Your task to perform on an android device: Open calendar and show me the second week of next month Image 0: 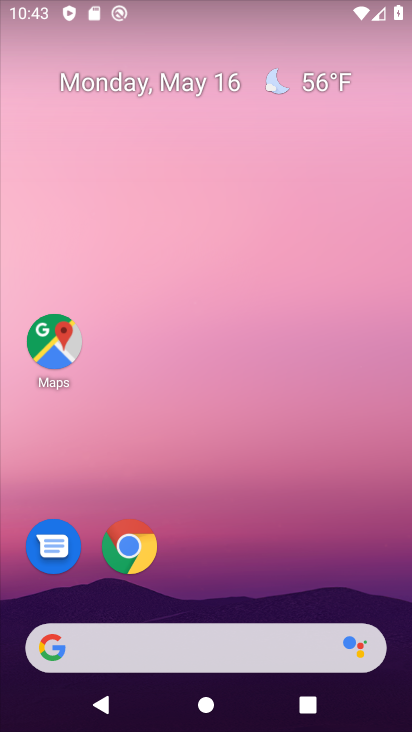
Step 0: drag from (297, 533) to (238, 73)
Your task to perform on an android device: Open calendar and show me the second week of next month Image 1: 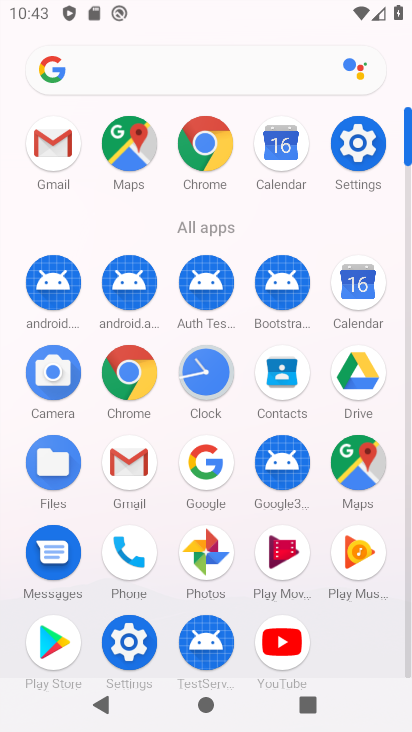
Step 1: click (346, 289)
Your task to perform on an android device: Open calendar and show me the second week of next month Image 2: 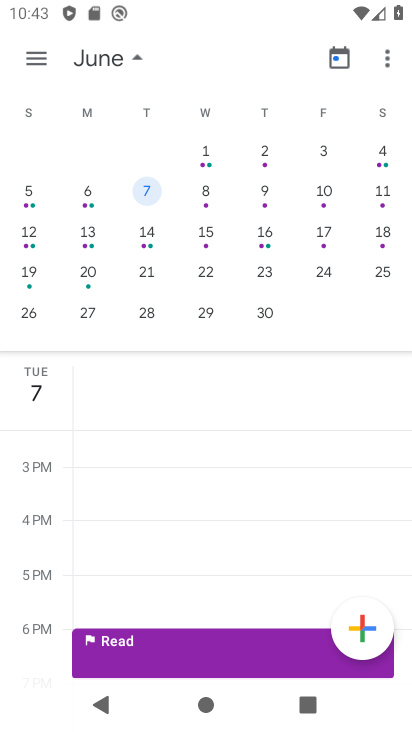
Step 2: drag from (328, 222) to (2, 383)
Your task to perform on an android device: Open calendar and show me the second week of next month Image 3: 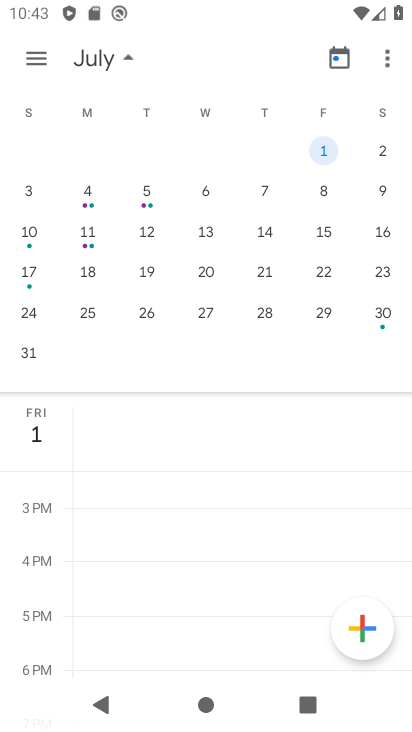
Step 3: click (267, 236)
Your task to perform on an android device: Open calendar and show me the second week of next month Image 4: 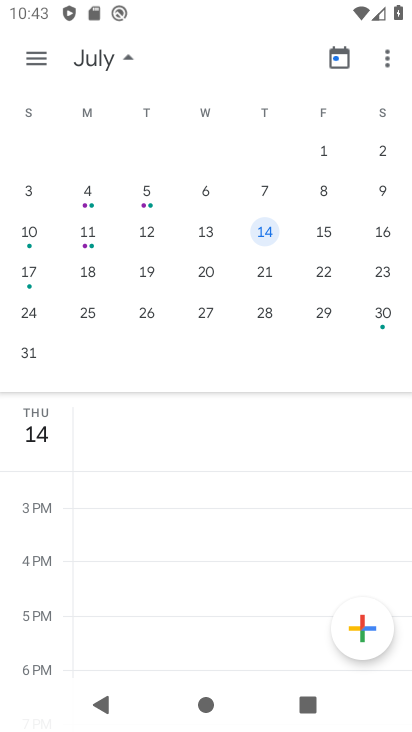
Step 4: task complete